Your task to perform on an android device: uninstall "Adobe Acrobat Reader" Image 0: 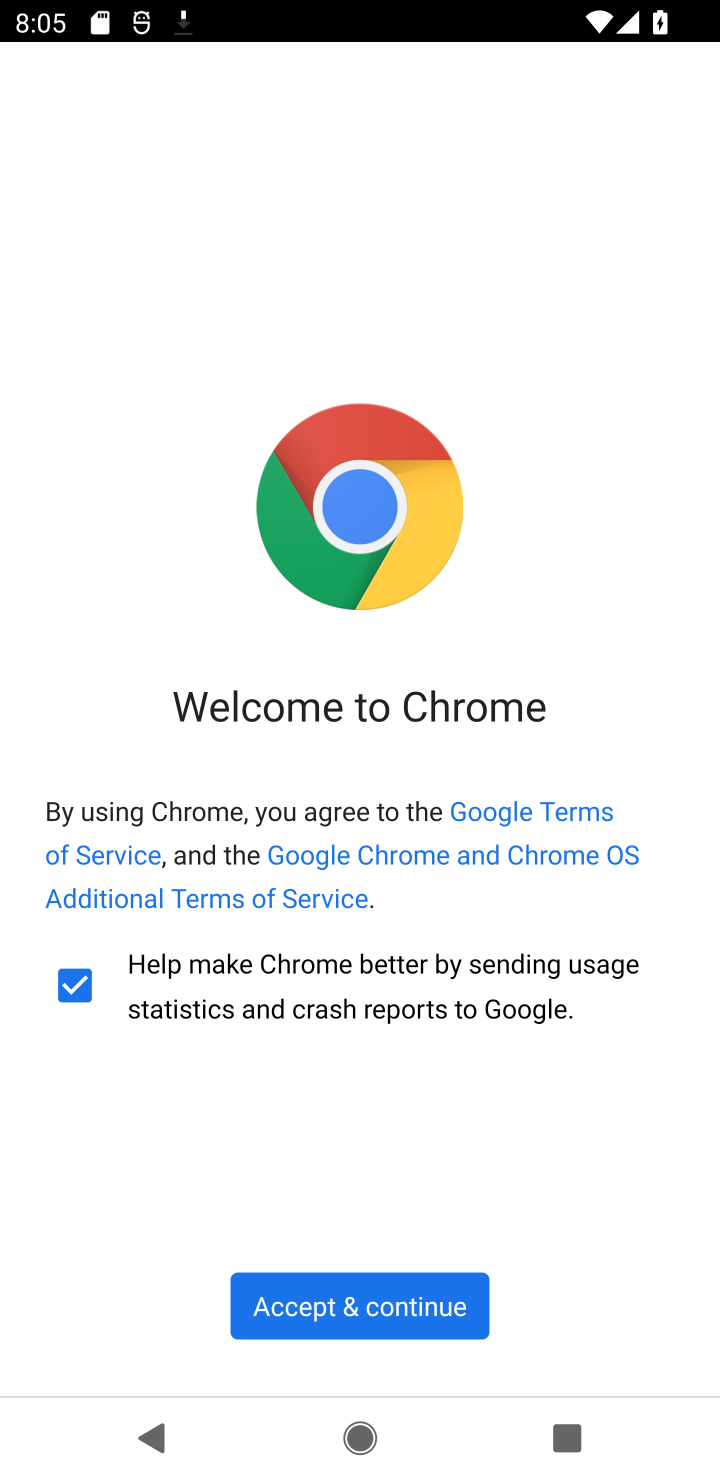
Step 0: press home button
Your task to perform on an android device: uninstall "Adobe Acrobat Reader" Image 1: 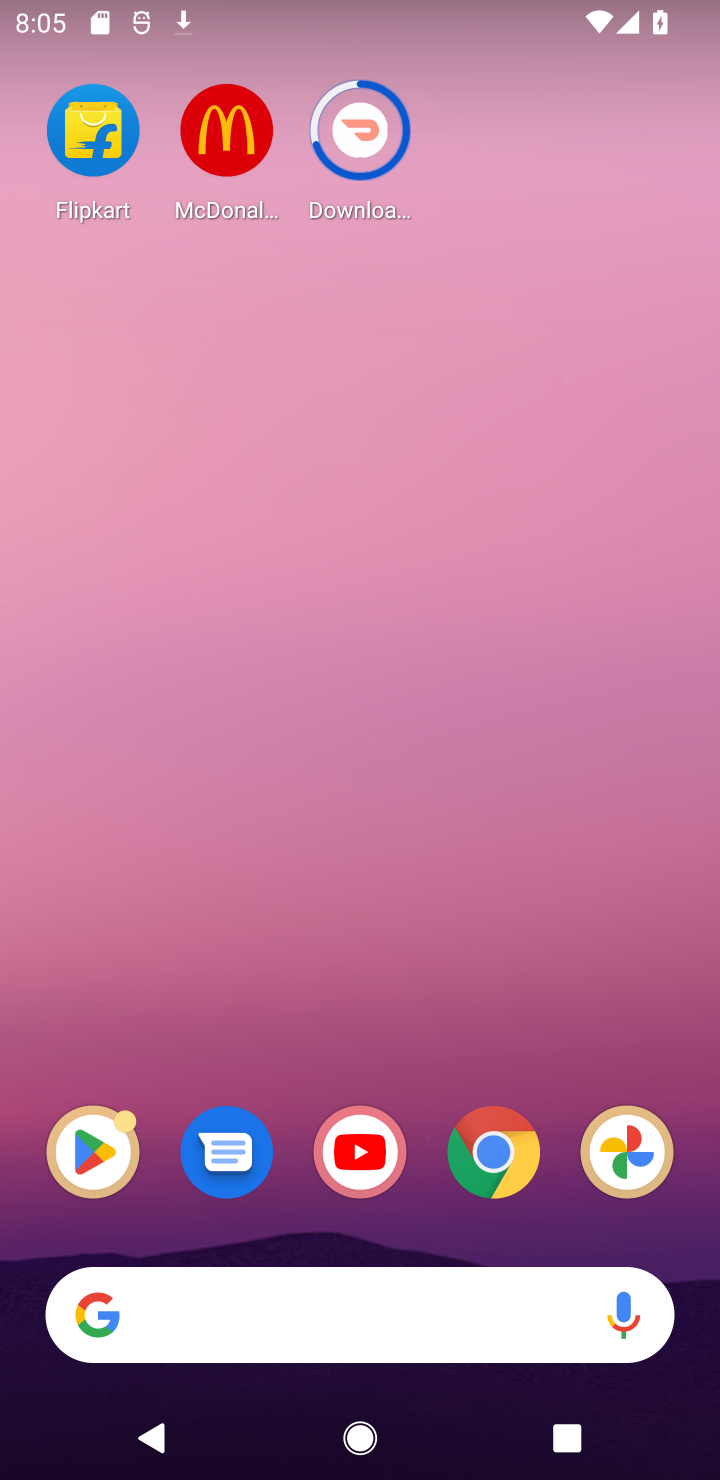
Step 1: click (60, 1162)
Your task to perform on an android device: uninstall "Adobe Acrobat Reader" Image 2: 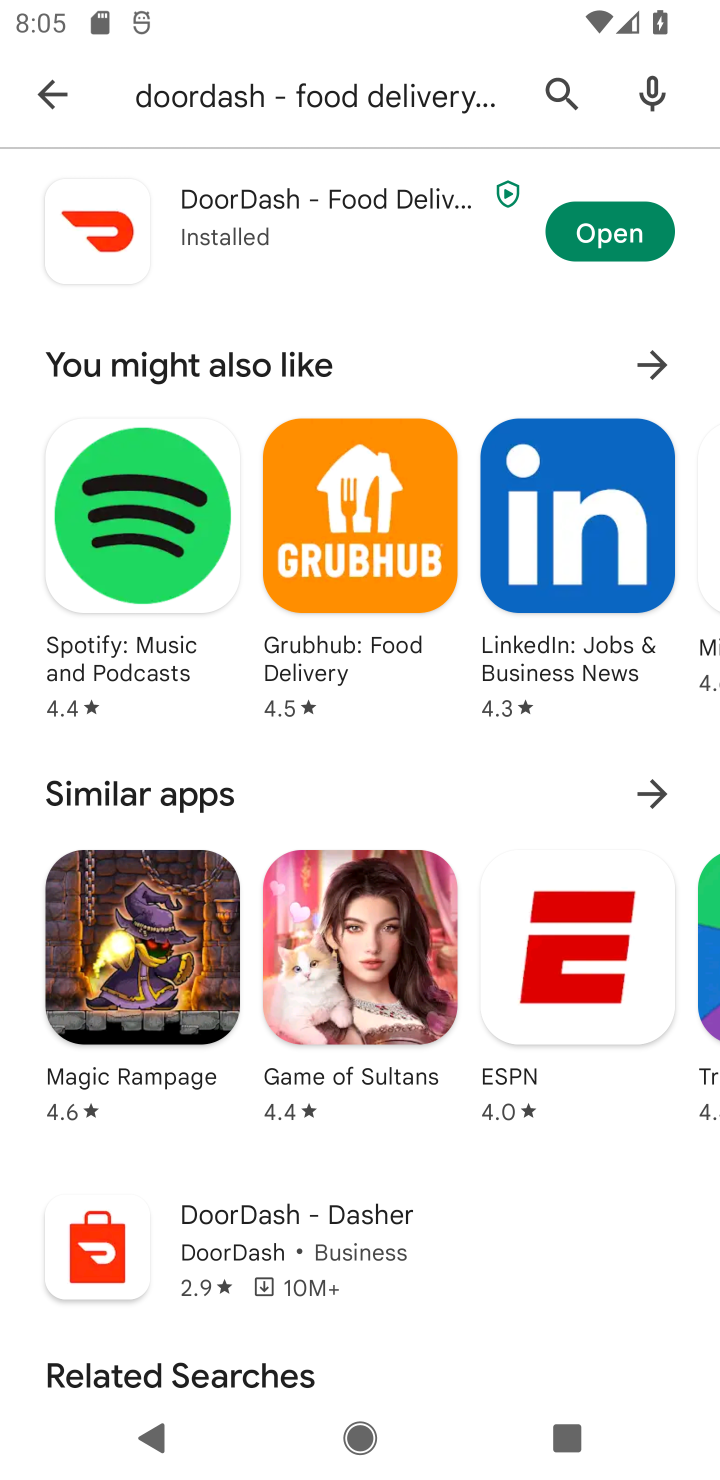
Step 2: click (69, 98)
Your task to perform on an android device: uninstall "Adobe Acrobat Reader" Image 3: 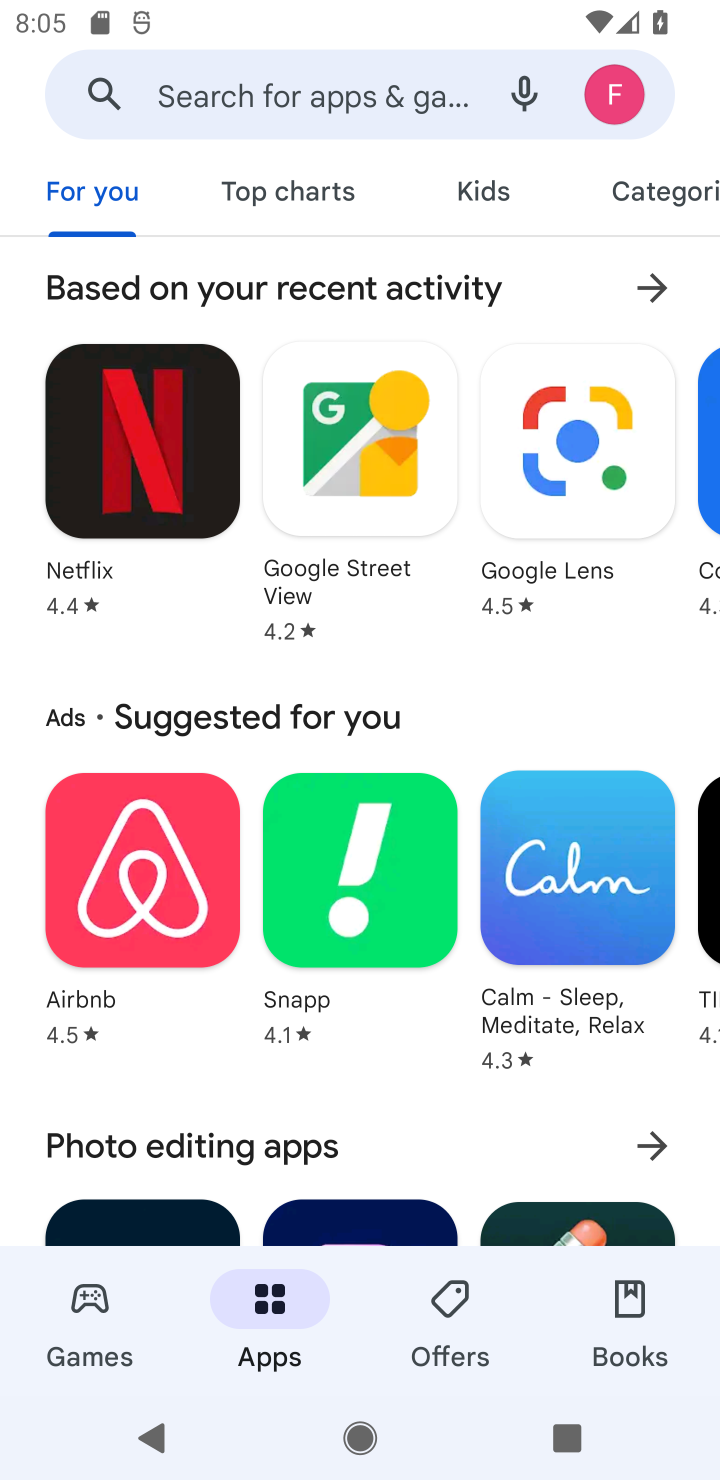
Step 3: click (341, 104)
Your task to perform on an android device: uninstall "Adobe Acrobat Reader" Image 4: 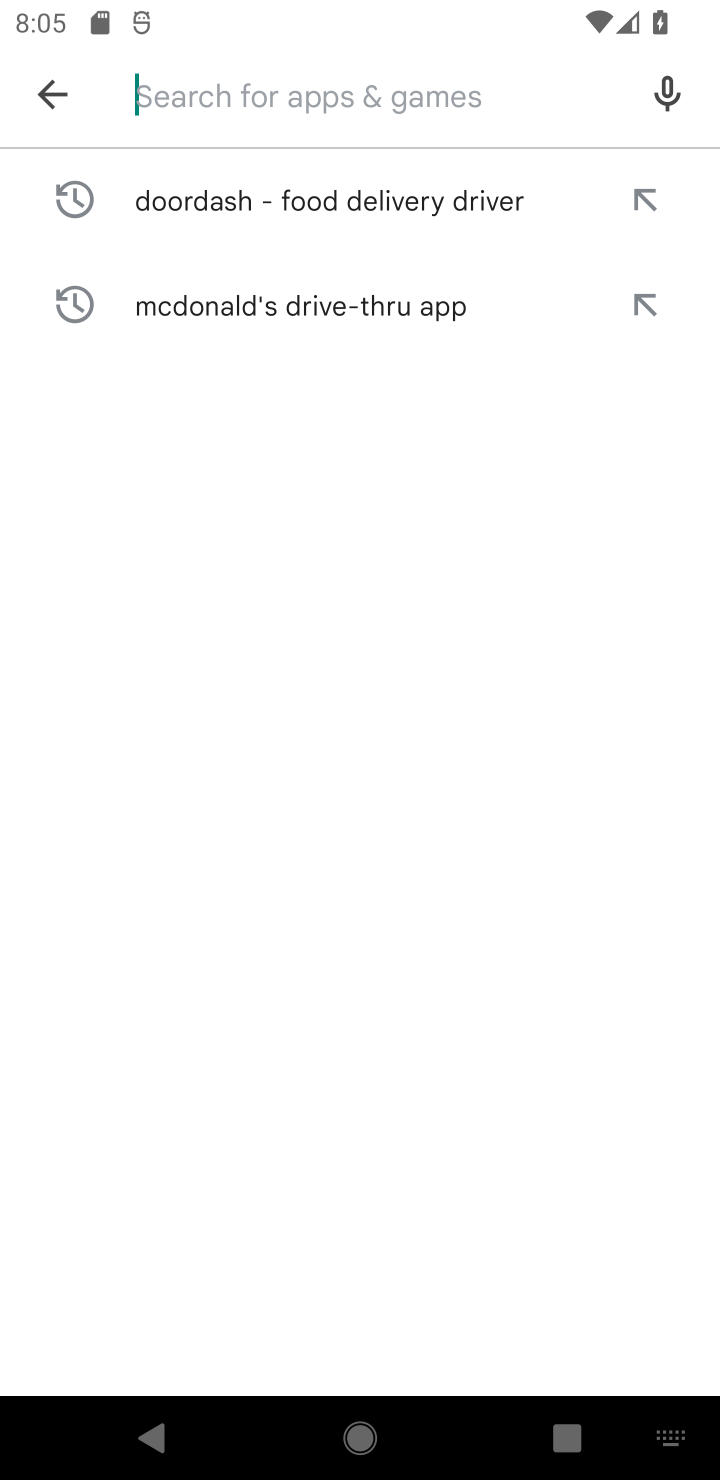
Step 4: type "Adobe Acrobat Reader"
Your task to perform on an android device: uninstall "Adobe Acrobat Reader" Image 5: 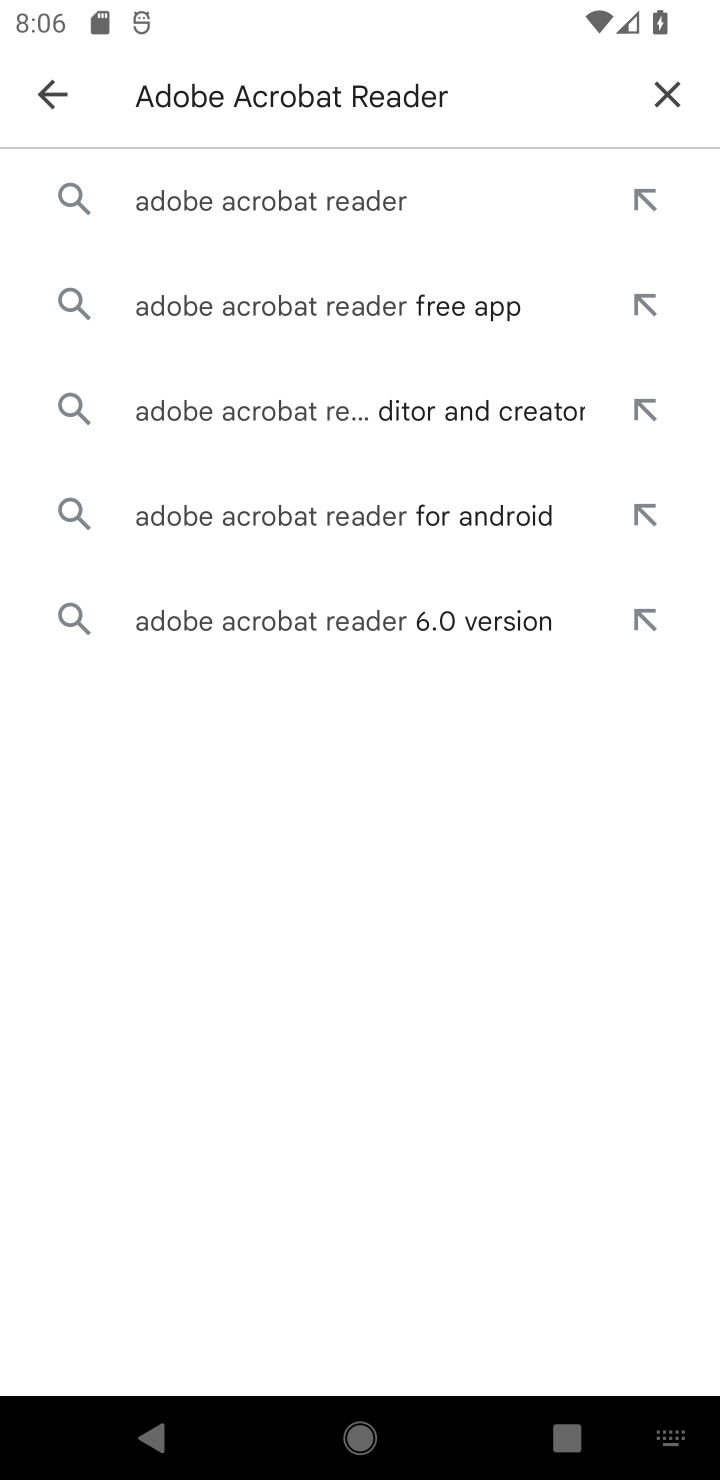
Step 5: click (207, 197)
Your task to perform on an android device: uninstall "Adobe Acrobat Reader" Image 6: 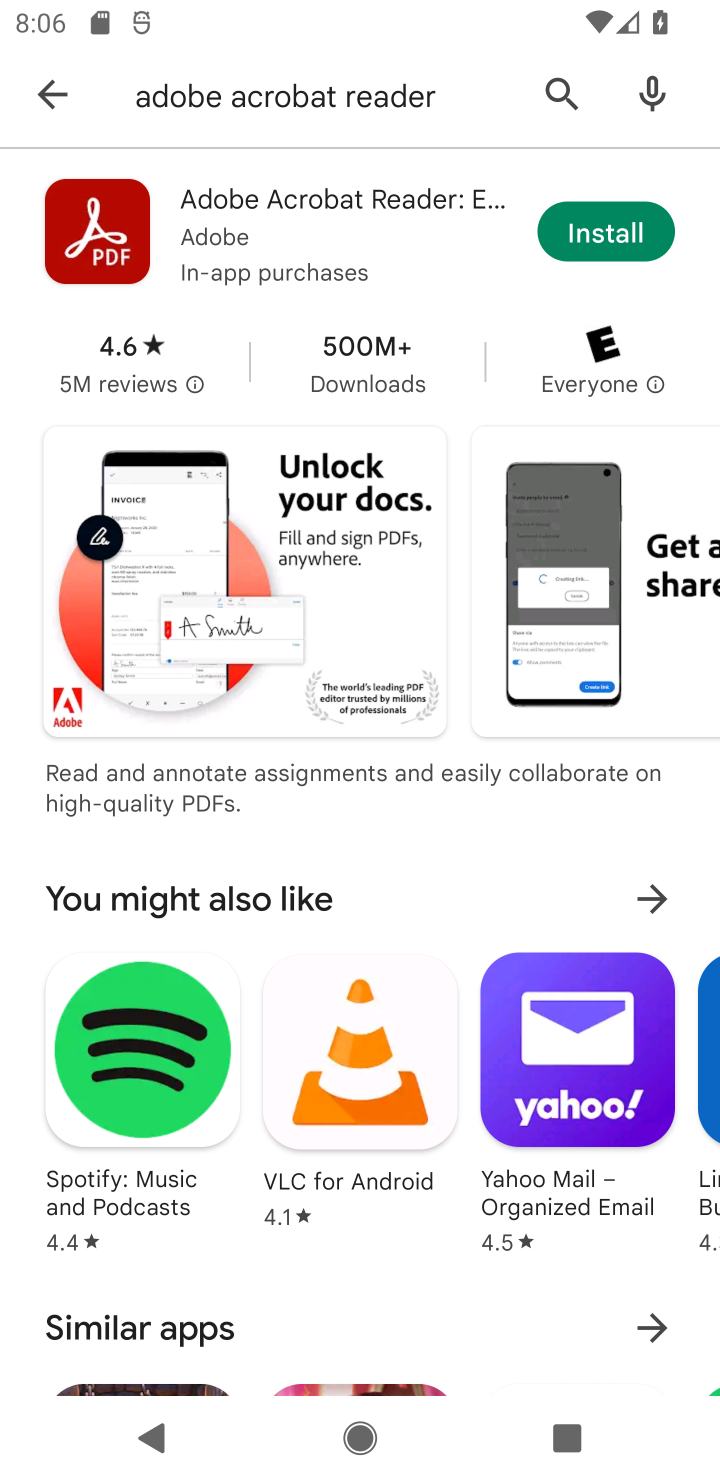
Step 6: click (621, 258)
Your task to perform on an android device: uninstall "Adobe Acrobat Reader" Image 7: 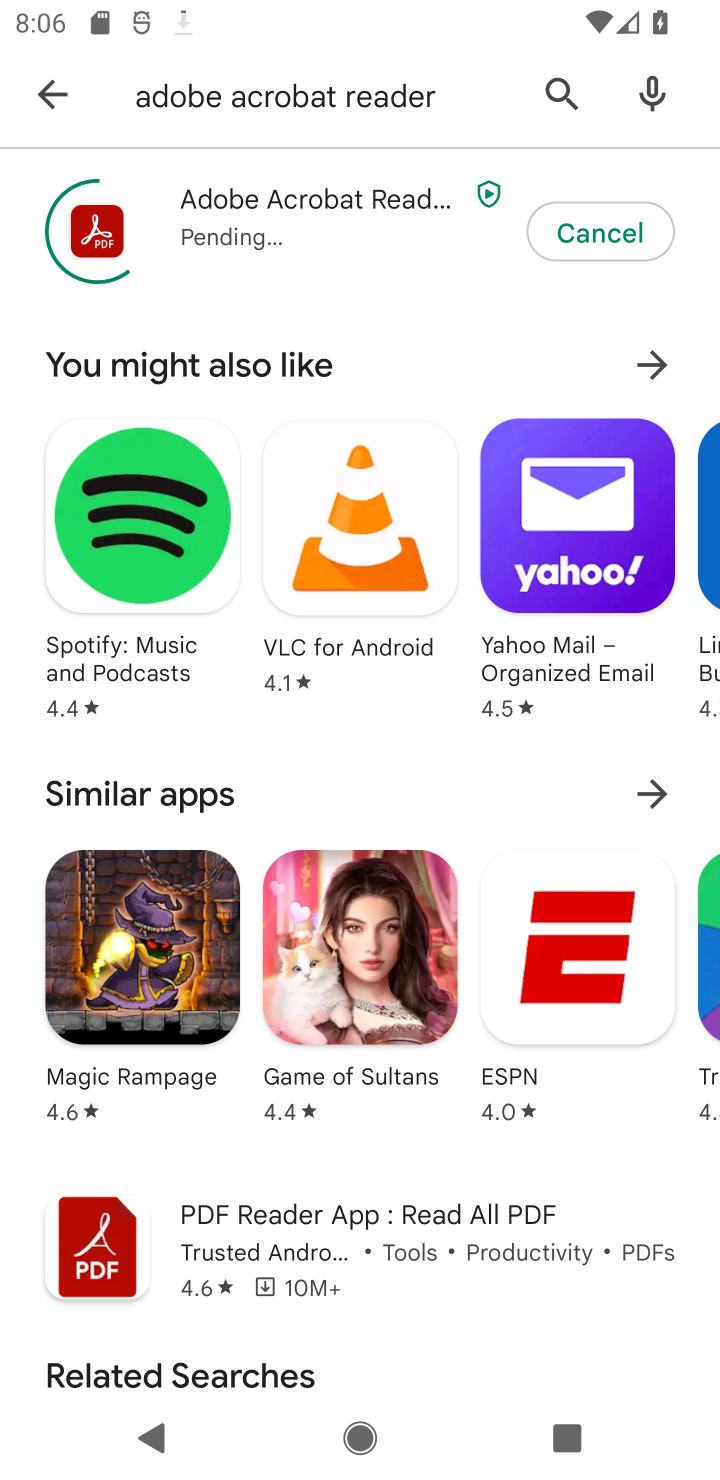
Step 7: task complete